Your task to perform on an android device: turn off notifications settings in the gmail app Image 0: 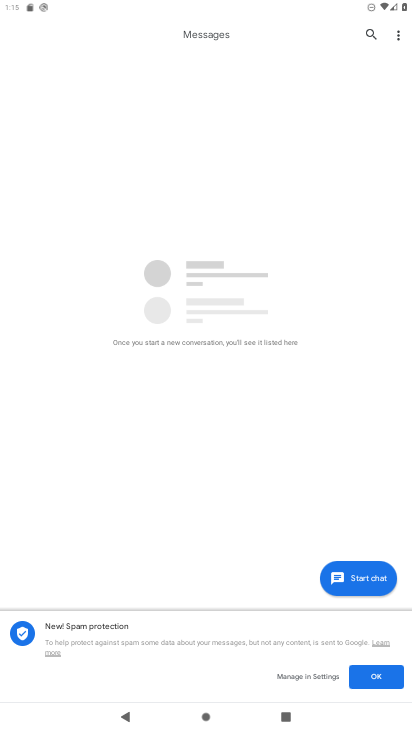
Step 0: press home button
Your task to perform on an android device: turn off notifications settings in the gmail app Image 1: 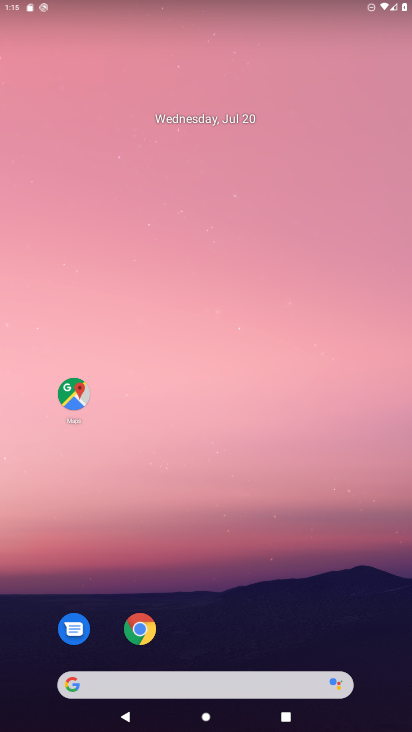
Step 1: click (73, 402)
Your task to perform on an android device: turn off notifications settings in the gmail app Image 2: 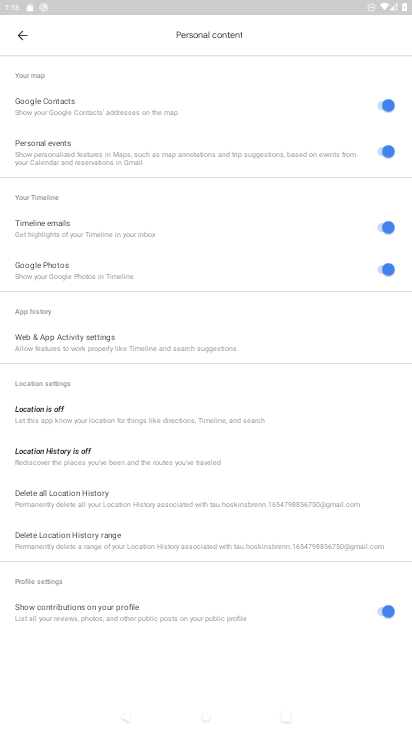
Step 2: press home button
Your task to perform on an android device: turn off notifications settings in the gmail app Image 3: 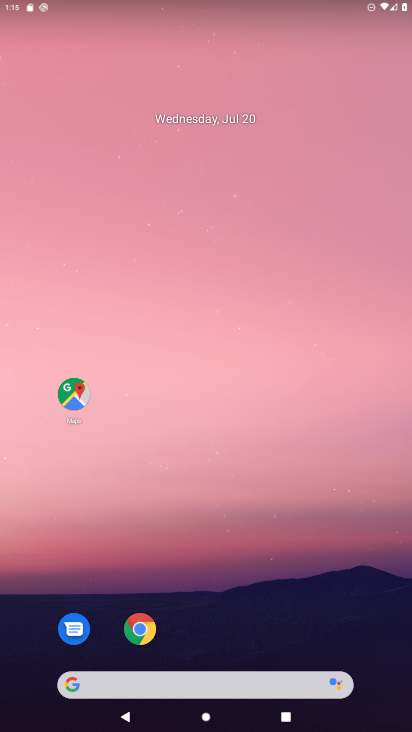
Step 3: drag from (181, 609) to (226, 62)
Your task to perform on an android device: turn off notifications settings in the gmail app Image 4: 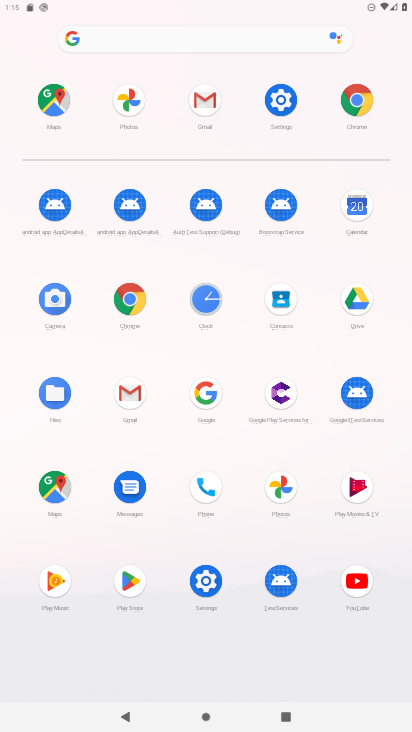
Step 4: click (126, 407)
Your task to perform on an android device: turn off notifications settings in the gmail app Image 5: 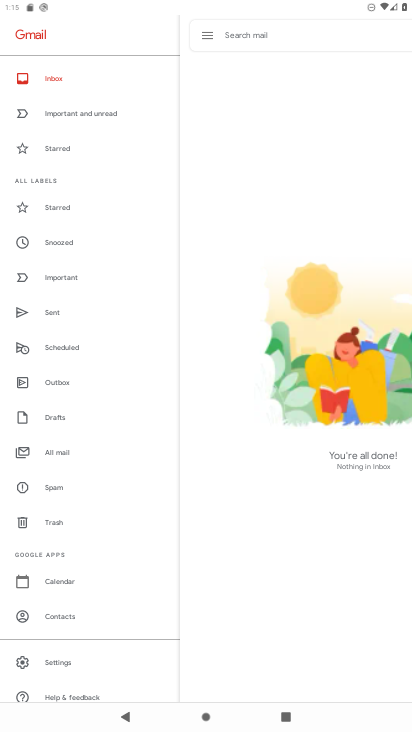
Step 5: click (49, 664)
Your task to perform on an android device: turn off notifications settings in the gmail app Image 6: 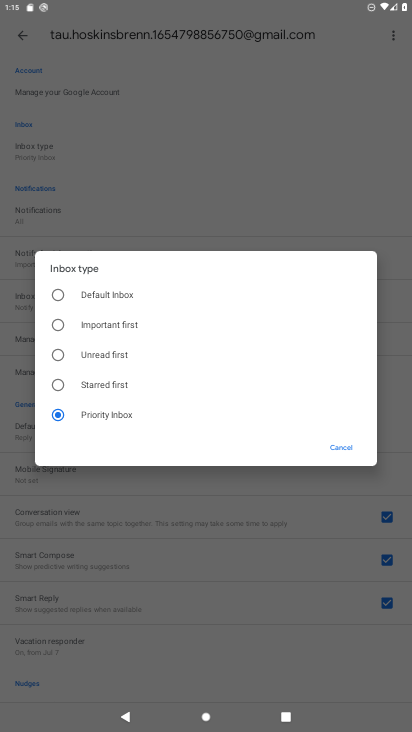
Step 6: click (334, 445)
Your task to perform on an android device: turn off notifications settings in the gmail app Image 7: 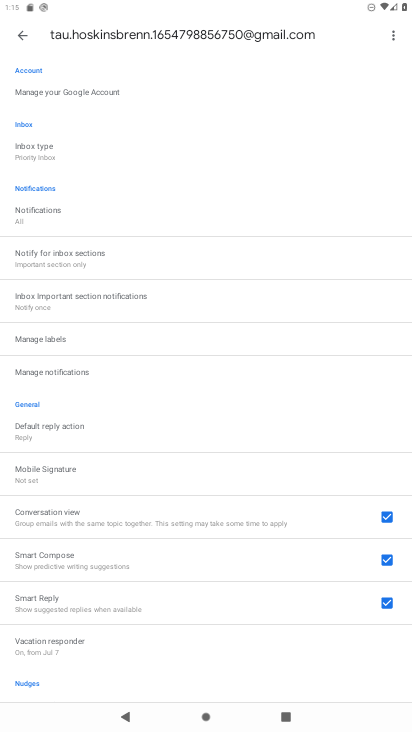
Step 7: click (56, 369)
Your task to perform on an android device: turn off notifications settings in the gmail app Image 8: 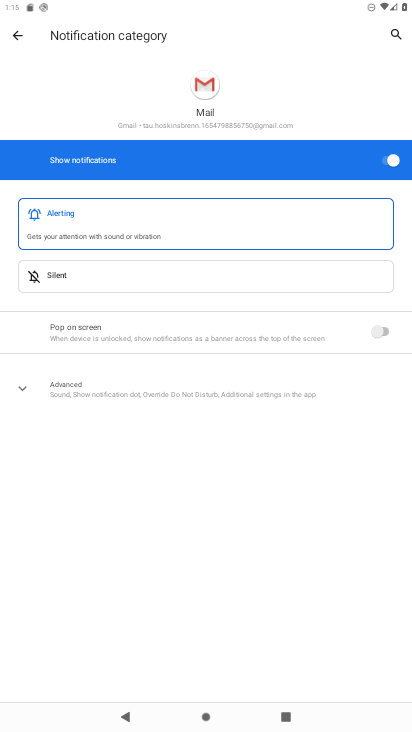
Step 8: click (370, 156)
Your task to perform on an android device: turn off notifications settings in the gmail app Image 9: 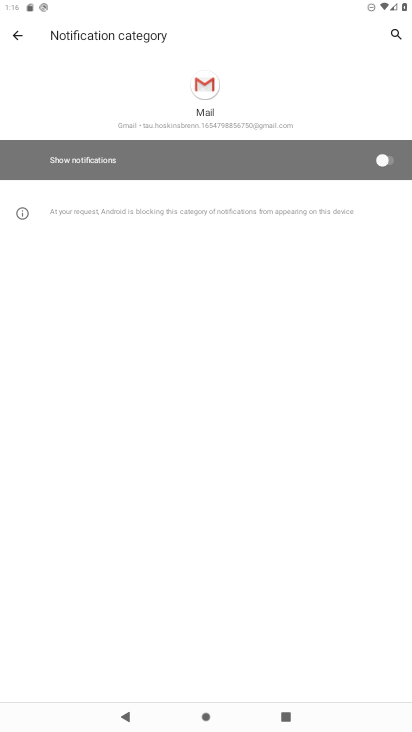
Step 9: task complete